Your task to perform on an android device: What's on my calendar tomorrow? Image 0: 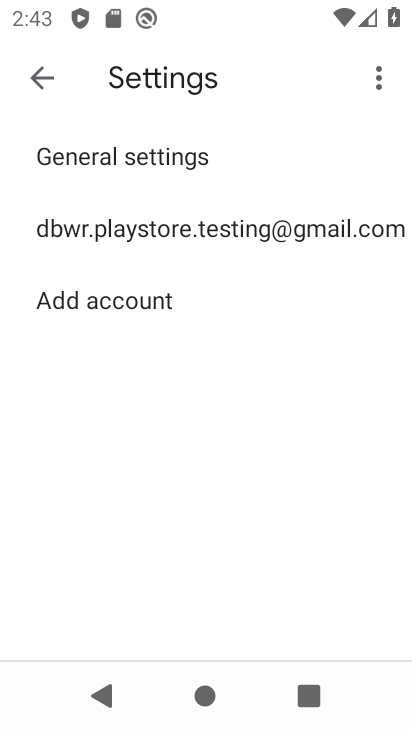
Step 0: press home button
Your task to perform on an android device: What's on my calendar tomorrow? Image 1: 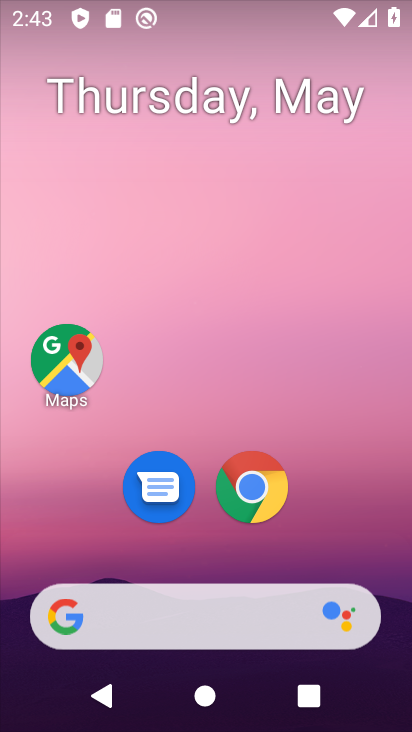
Step 1: drag from (80, 585) to (217, 81)
Your task to perform on an android device: What's on my calendar tomorrow? Image 2: 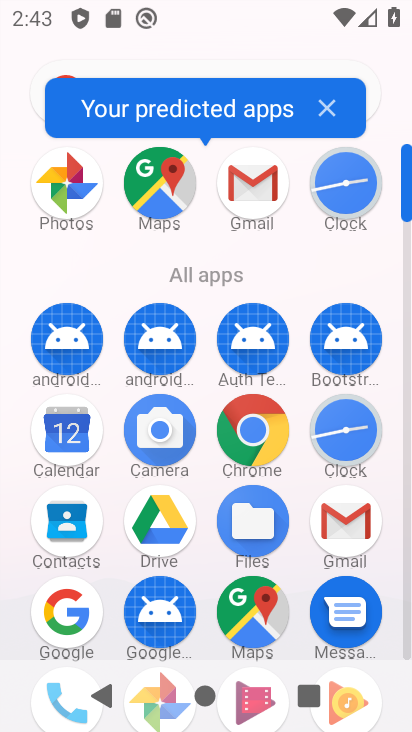
Step 2: click (59, 437)
Your task to perform on an android device: What's on my calendar tomorrow? Image 3: 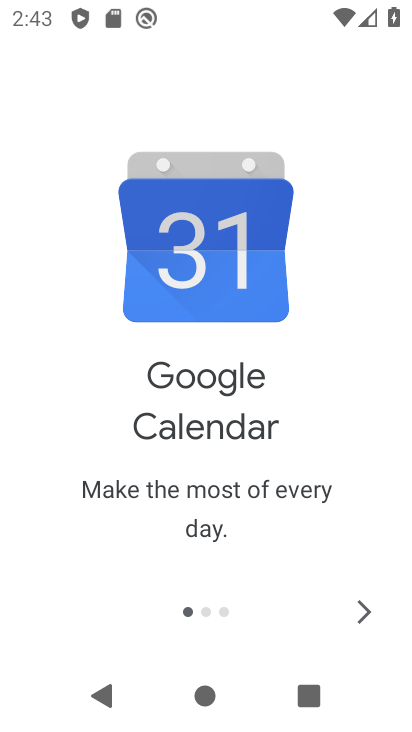
Step 3: click (370, 595)
Your task to perform on an android device: What's on my calendar tomorrow? Image 4: 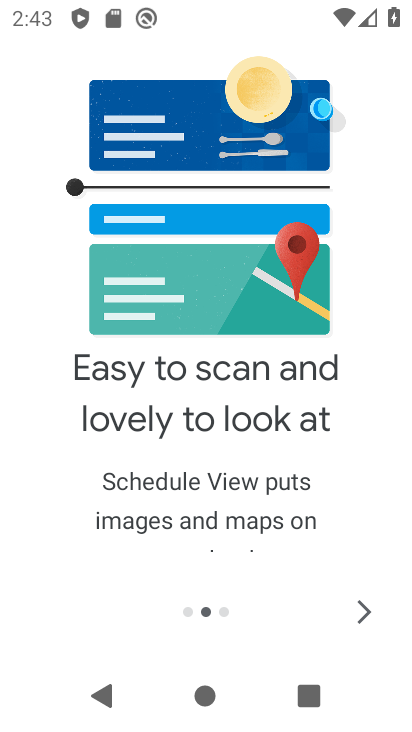
Step 4: click (366, 619)
Your task to perform on an android device: What's on my calendar tomorrow? Image 5: 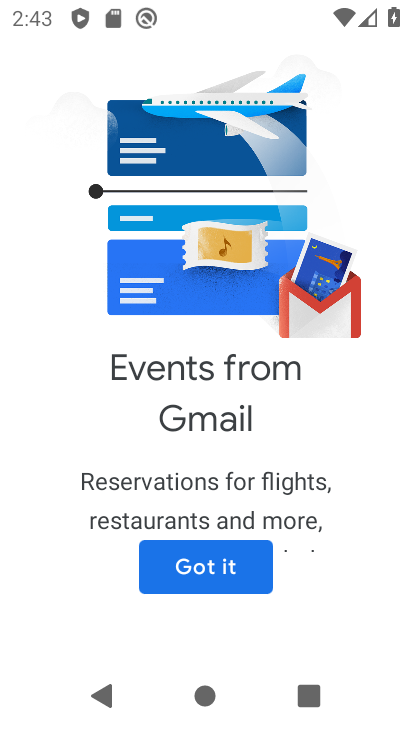
Step 5: click (237, 575)
Your task to perform on an android device: What's on my calendar tomorrow? Image 6: 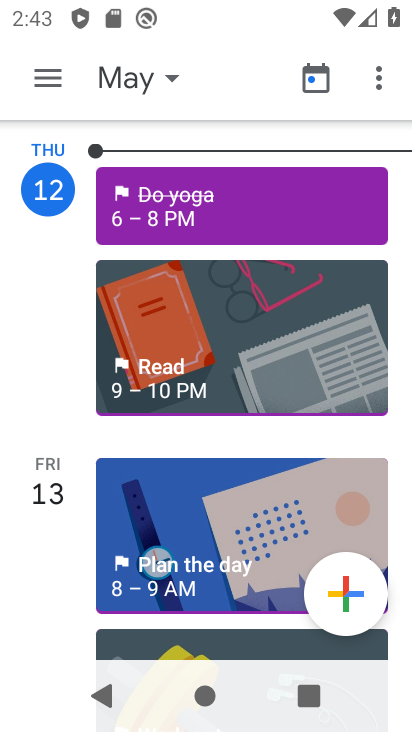
Step 6: click (118, 89)
Your task to perform on an android device: What's on my calendar tomorrow? Image 7: 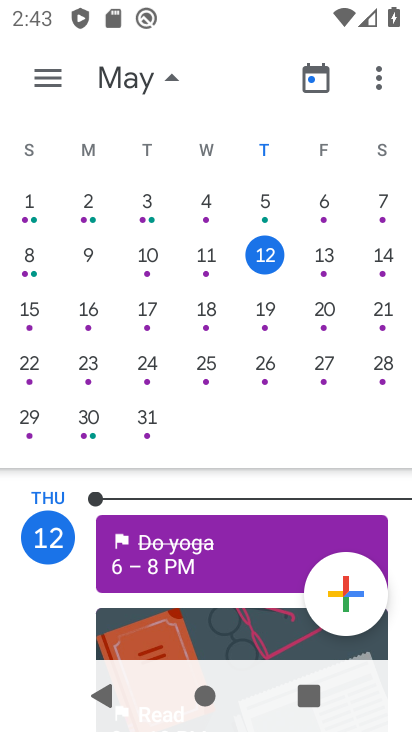
Step 7: click (325, 263)
Your task to perform on an android device: What's on my calendar tomorrow? Image 8: 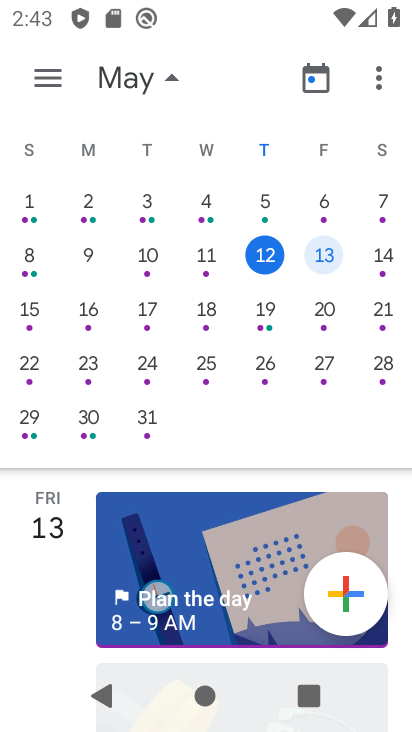
Step 8: click (153, 78)
Your task to perform on an android device: What's on my calendar tomorrow? Image 9: 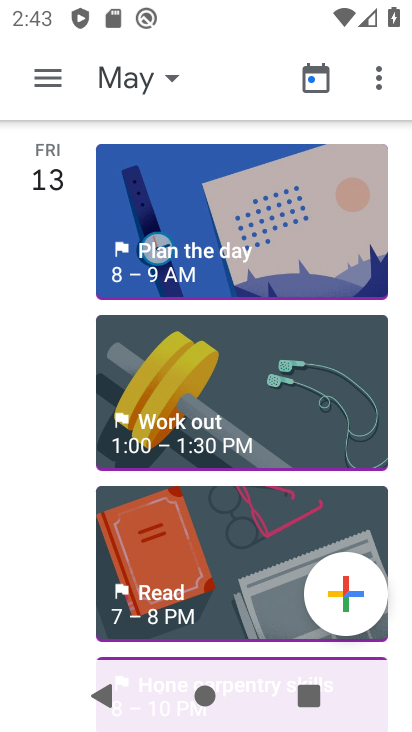
Step 9: task complete